Your task to perform on an android device: turn on data saver in the chrome app Image 0: 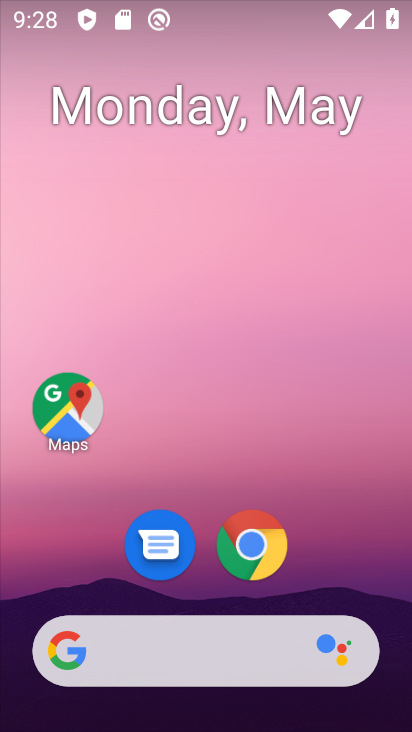
Step 0: click (272, 551)
Your task to perform on an android device: turn on data saver in the chrome app Image 1: 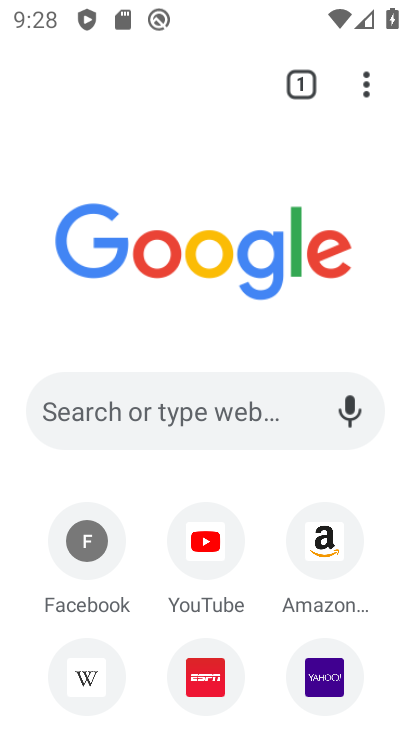
Step 1: drag from (362, 92) to (164, 612)
Your task to perform on an android device: turn on data saver in the chrome app Image 2: 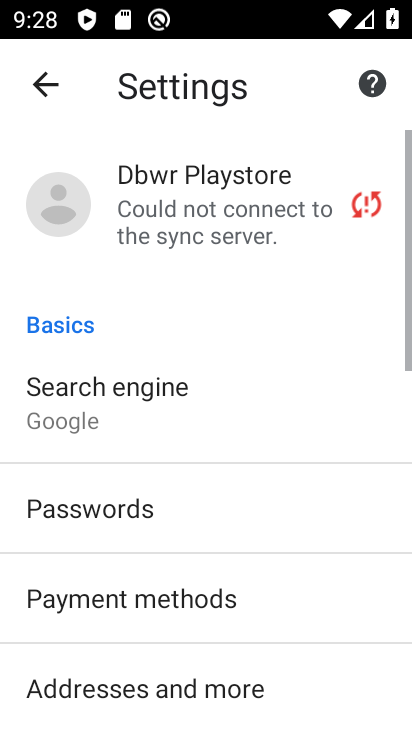
Step 2: drag from (147, 648) to (262, 269)
Your task to perform on an android device: turn on data saver in the chrome app Image 3: 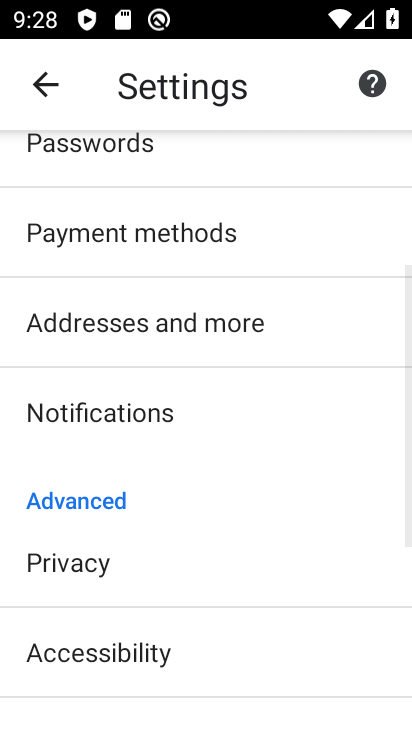
Step 3: drag from (190, 679) to (296, 345)
Your task to perform on an android device: turn on data saver in the chrome app Image 4: 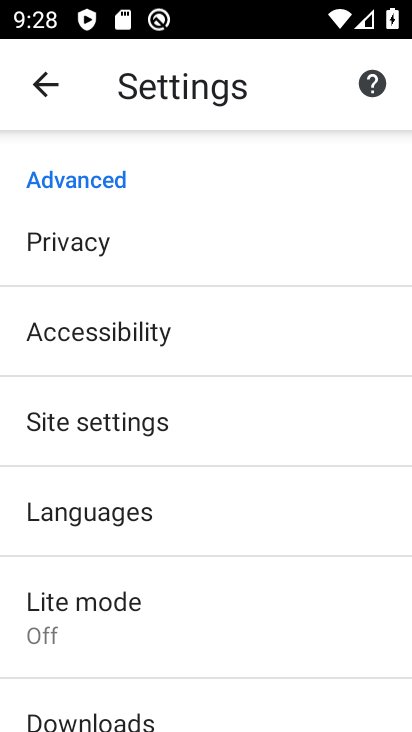
Step 4: click (145, 615)
Your task to perform on an android device: turn on data saver in the chrome app Image 5: 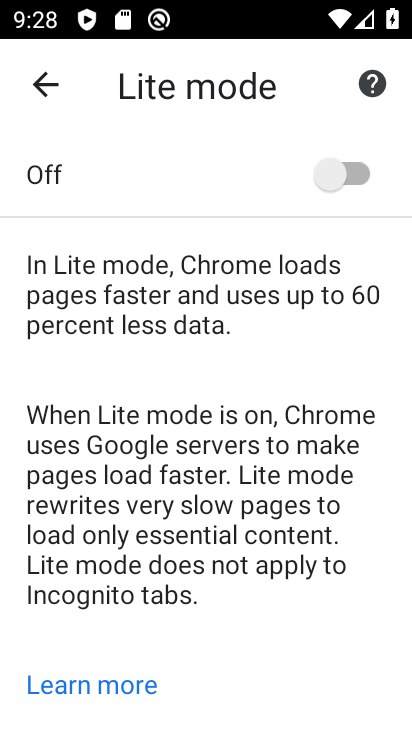
Step 5: click (347, 166)
Your task to perform on an android device: turn on data saver in the chrome app Image 6: 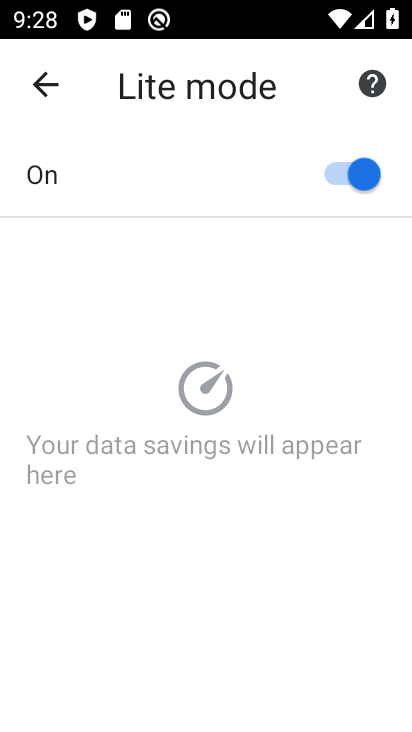
Step 6: task complete